Your task to perform on an android device: turn notification dots on Image 0: 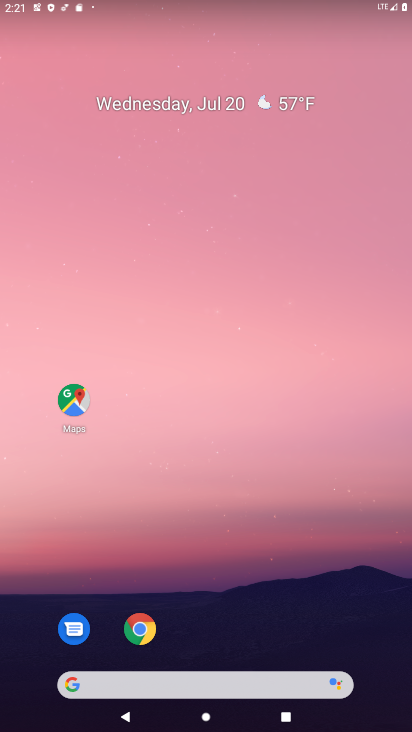
Step 0: drag from (225, 689) to (213, 201)
Your task to perform on an android device: turn notification dots on Image 1: 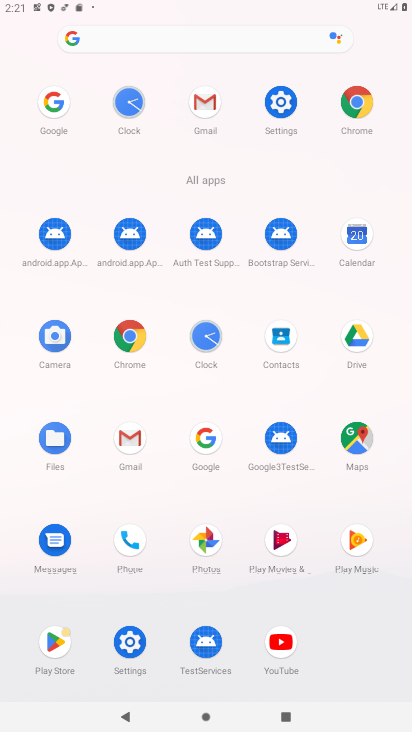
Step 1: click (278, 113)
Your task to perform on an android device: turn notification dots on Image 2: 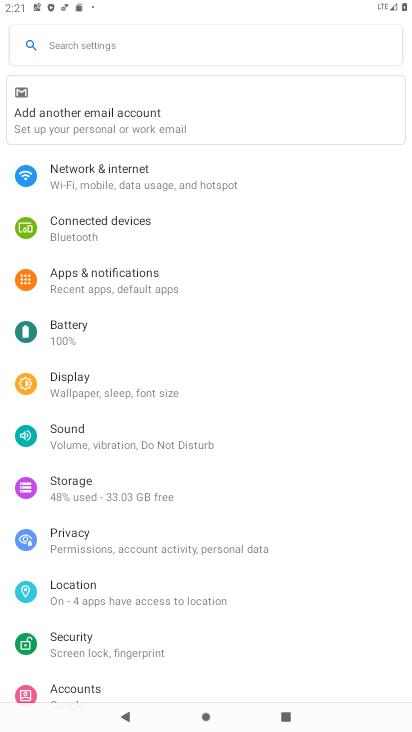
Step 2: click (106, 279)
Your task to perform on an android device: turn notification dots on Image 3: 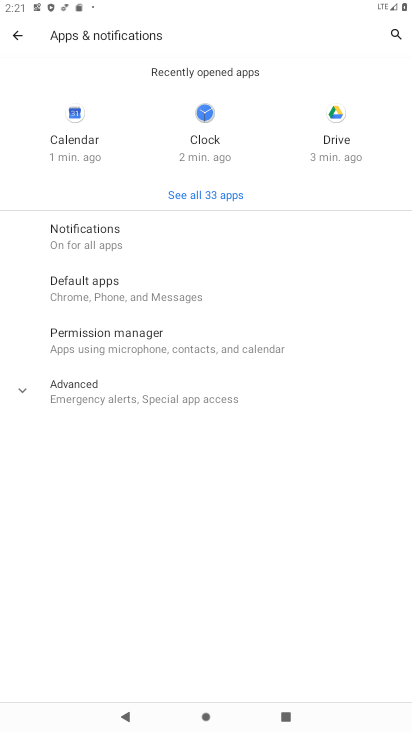
Step 3: click (110, 249)
Your task to perform on an android device: turn notification dots on Image 4: 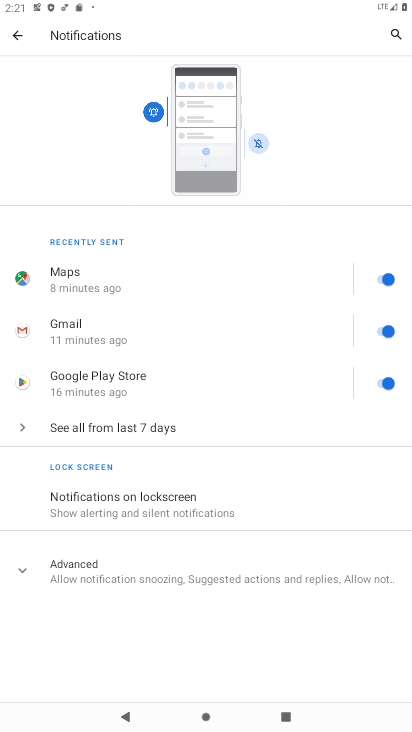
Step 4: click (147, 572)
Your task to perform on an android device: turn notification dots on Image 5: 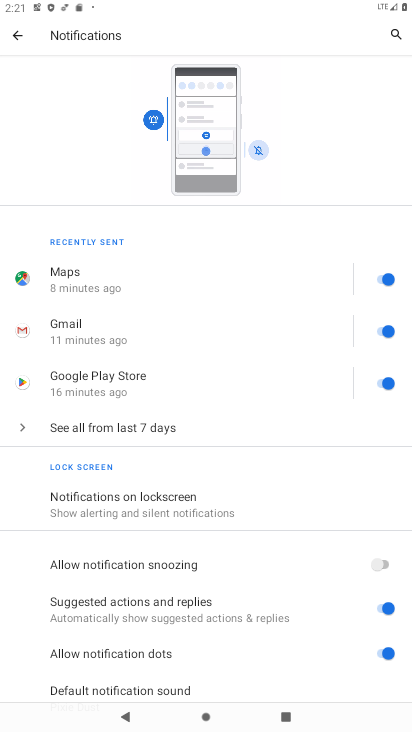
Step 5: task complete